Your task to perform on an android device: Go to battery settings Image 0: 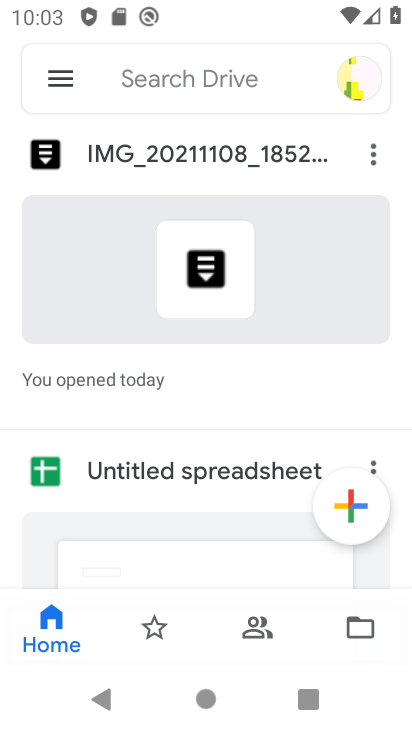
Step 0: press home button
Your task to perform on an android device: Go to battery settings Image 1: 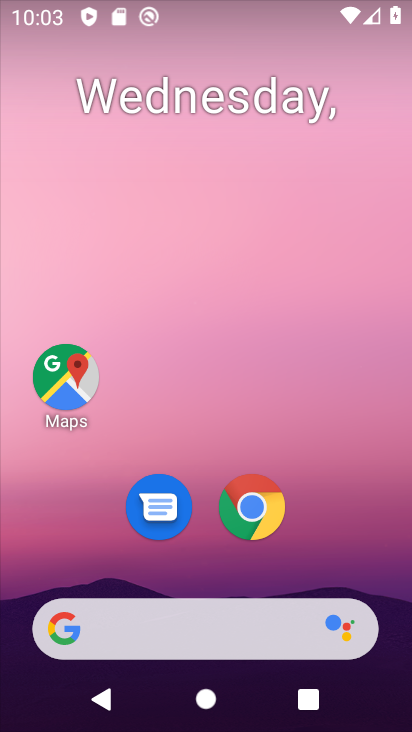
Step 1: drag from (255, 682) to (240, 290)
Your task to perform on an android device: Go to battery settings Image 2: 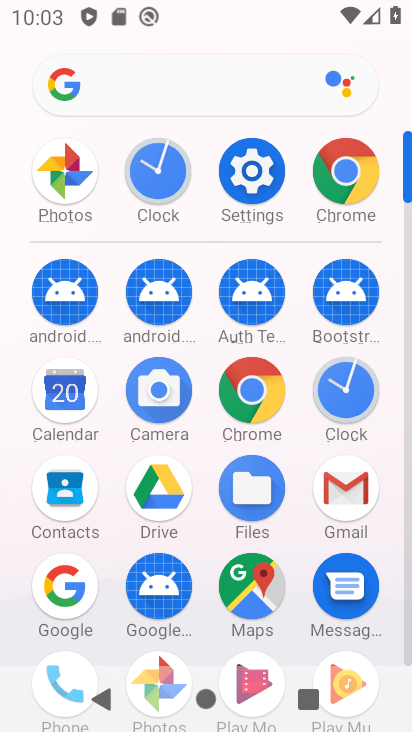
Step 2: click (243, 176)
Your task to perform on an android device: Go to battery settings Image 3: 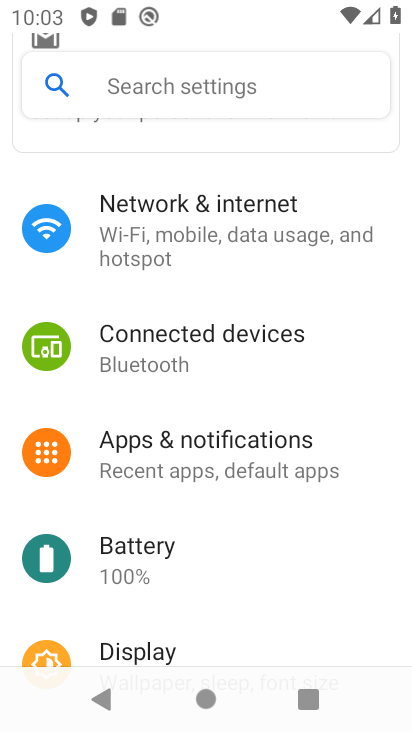
Step 3: click (154, 543)
Your task to perform on an android device: Go to battery settings Image 4: 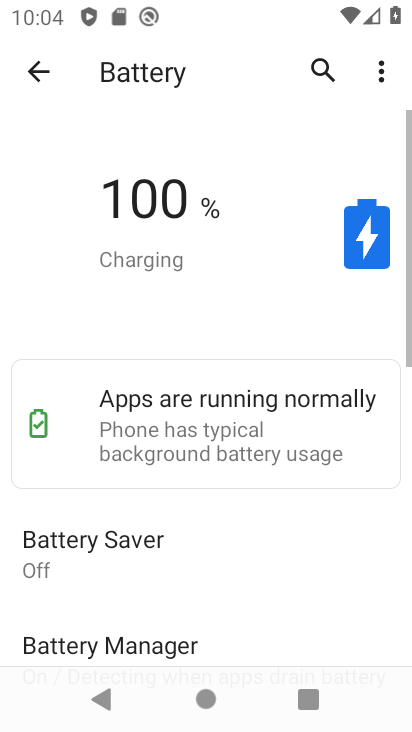
Step 4: task complete